Your task to perform on an android device: Open Youtube and go to "Your channel" Image 0: 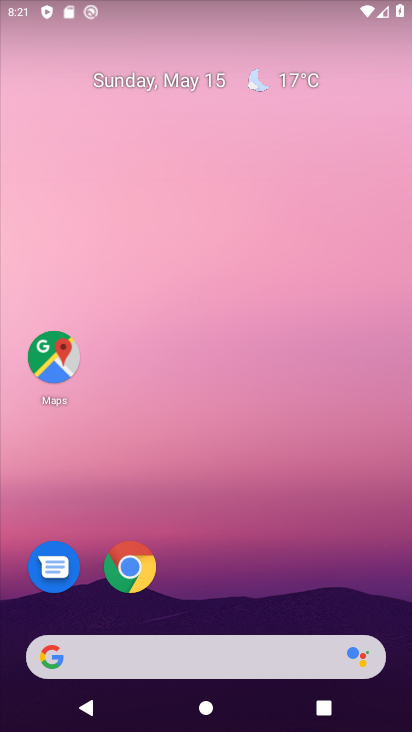
Step 0: drag from (276, 692) to (219, 131)
Your task to perform on an android device: Open Youtube and go to "Your channel" Image 1: 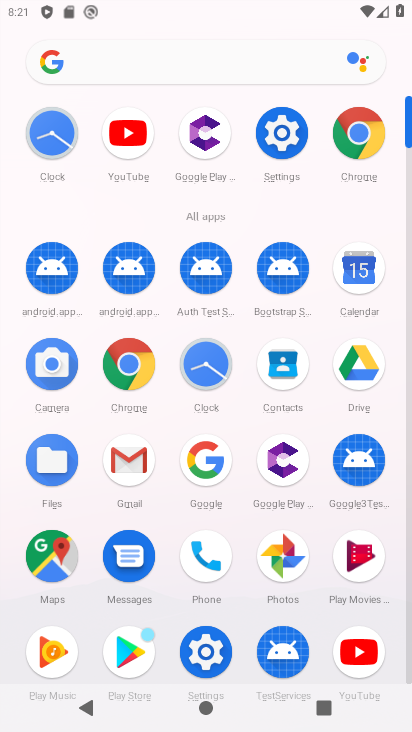
Step 1: click (362, 660)
Your task to perform on an android device: Open Youtube and go to "Your channel" Image 2: 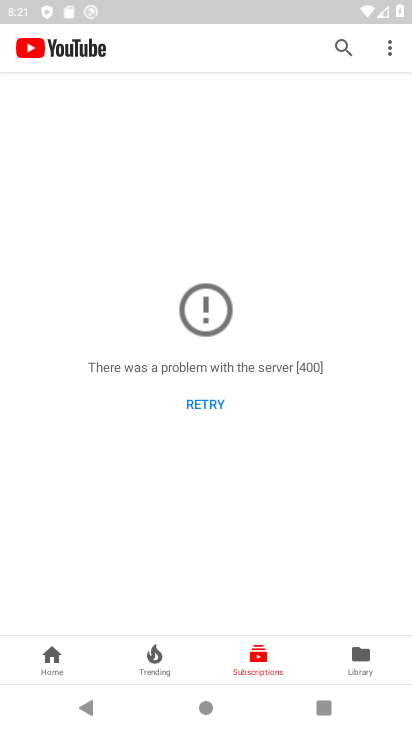
Step 2: click (389, 44)
Your task to perform on an android device: Open Youtube and go to "Your channel" Image 3: 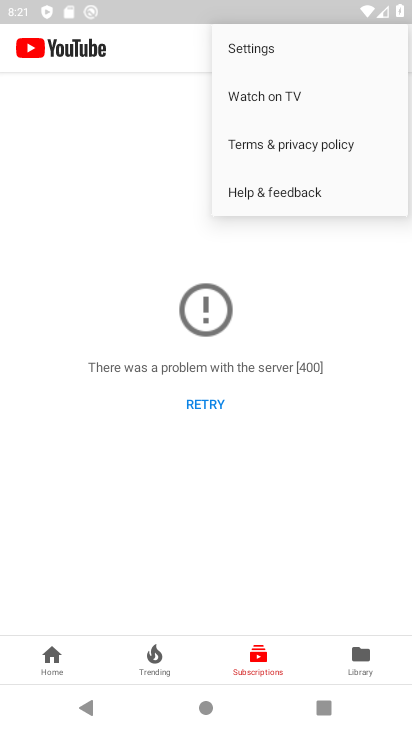
Step 3: task complete